Your task to perform on an android device: allow notifications from all sites in the chrome app Image 0: 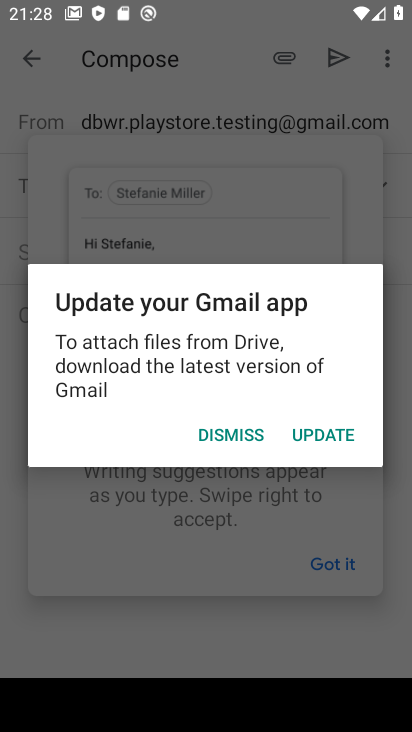
Step 0: press home button
Your task to perform on an android device: allow notifications from all sites in the chrome app Image 1: 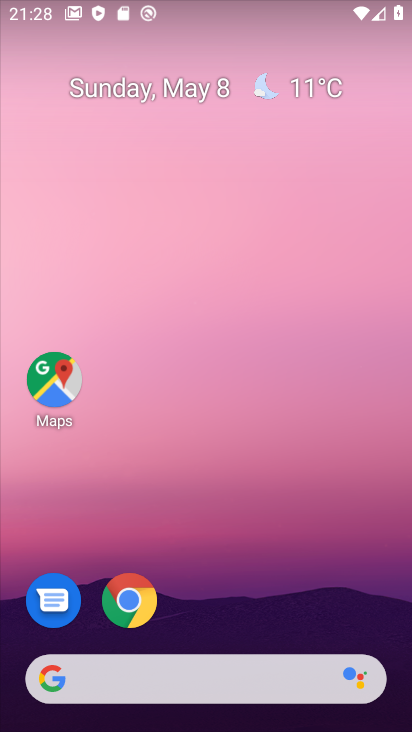
Step 1: click (136, 608)
Your task to perform on an android device: allow notifications from all sites in the chrome app Image 2: 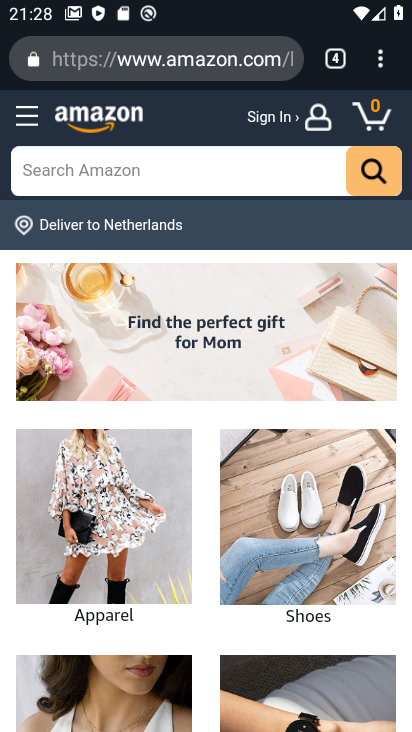
Step 2: click (376, 58)
Your task to perform on an android device: allow notifications from all sites in the chrome app Image 3: 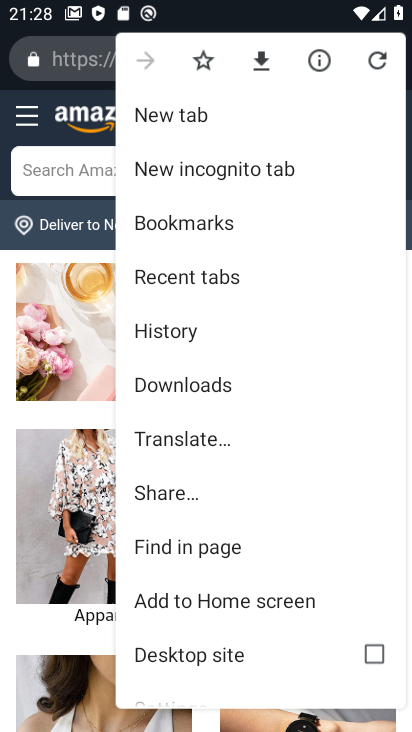
Step 3: drag from (207, 635) to (251, 328)
Your task to perform on an android device: allow notifications from all sites in the chrome app Image 4: 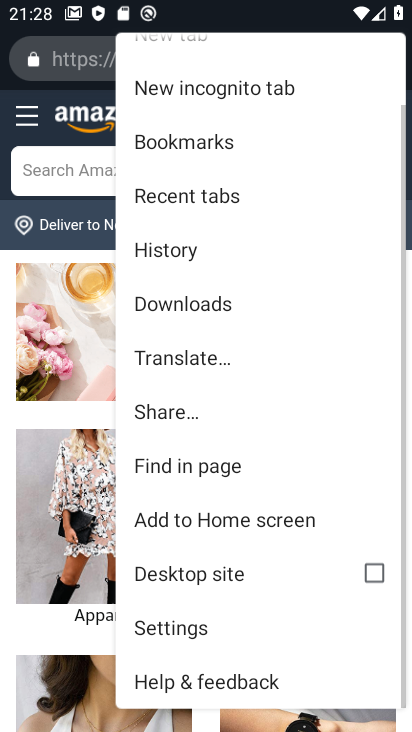
Step 4: click (230, 634)
Your task to perform on an android device: allow notifications from all sites in the chrome app Image 5: 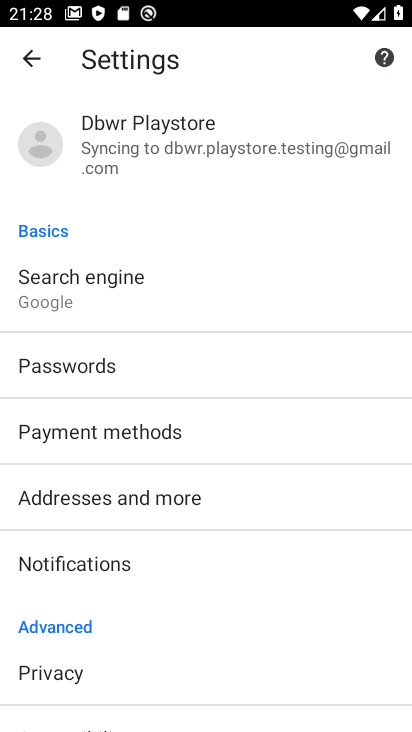
Step 5: click (142, 571)
Your task to perform on an android device: allow notifications from all sites in the chrome app Image 6: 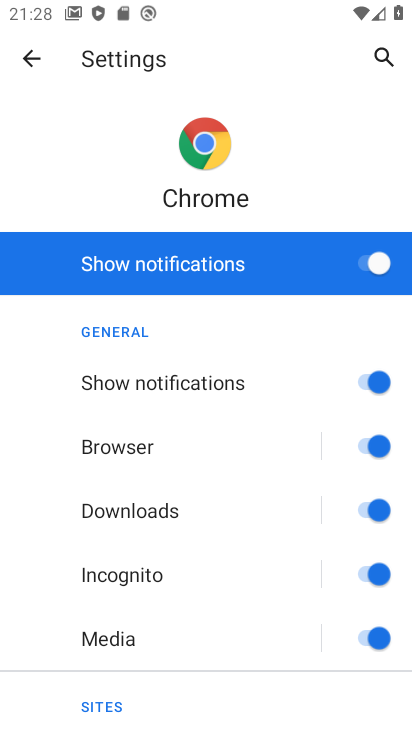
Step 6: task complete